Your task to perform on an android device: turn off wifi Image 0: 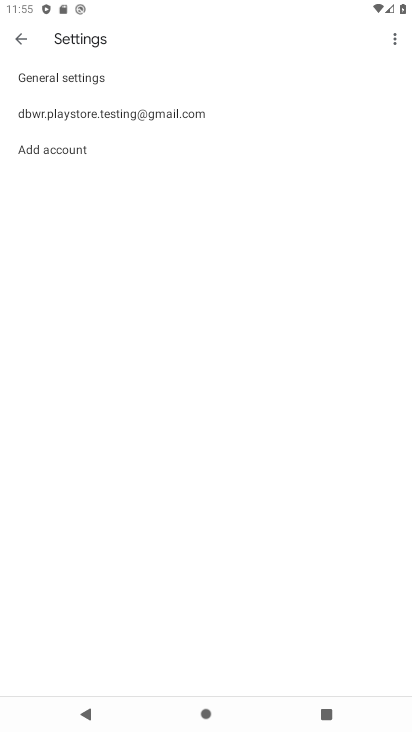
Step 0: press home button
Your task to perform on an android device: turn off wifi Image 1: 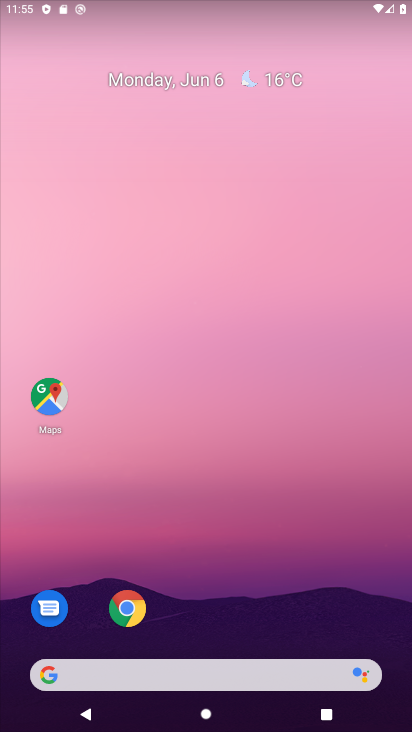
Step 1: drag from (275, 612) to (243, 4)
Your task to perform on an android device: turn off wifi Image 2: 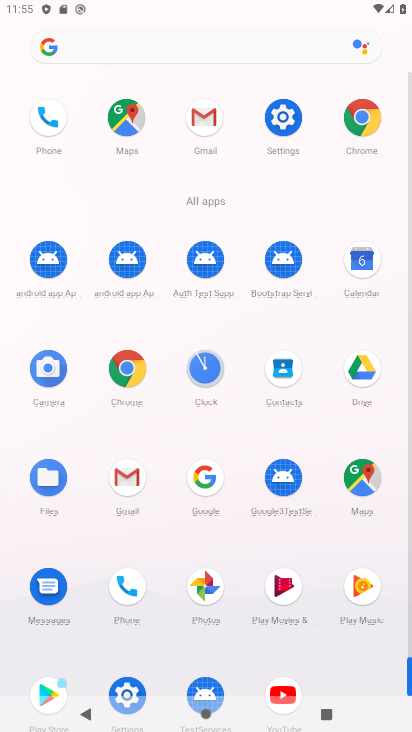
Step 2: click (278, 107)
Your task to perform on an android device: turn off wifi Image 3: 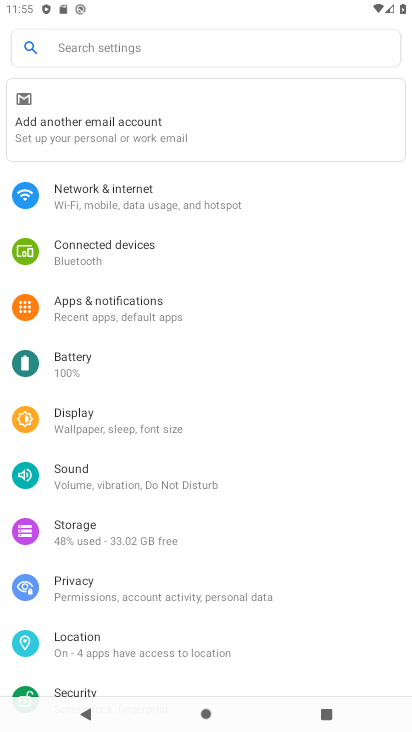
Step 3: click (115, 186)
Your task to perform on an android device: turn off wifi Image 4: 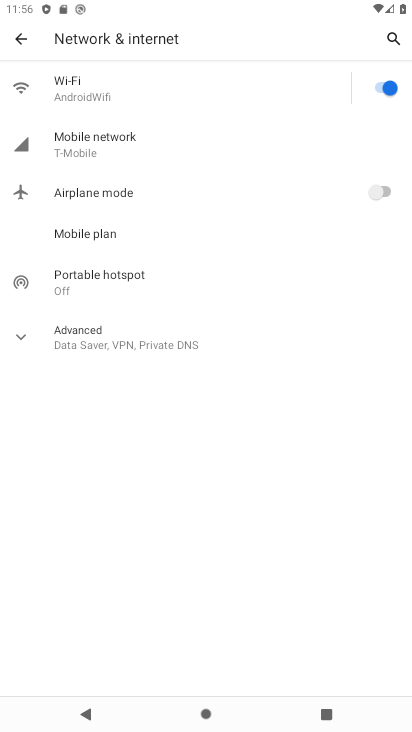
Step 4: click (386, 97)
Your task to perform on an android device: turn off wifi Image 5: 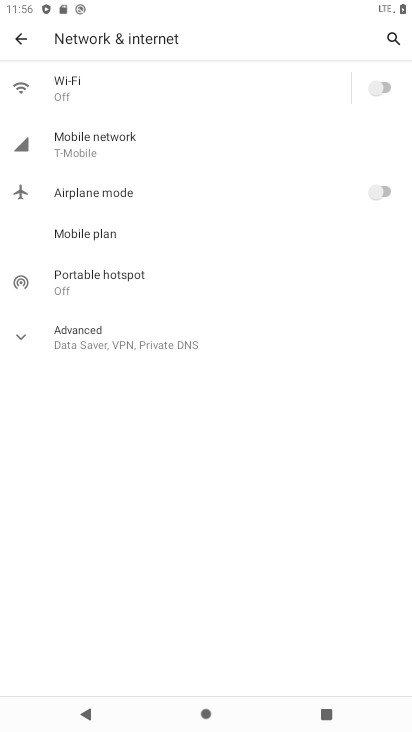
Step 5: task complete